Your task to perform on an android device: toggle javascript in the chrome app Image 0: 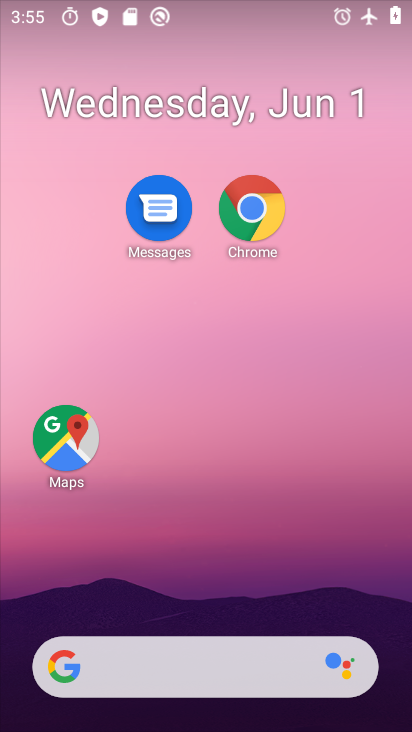
Step 0: click (268, 224)
Your task to perform on an android device: toggle javascript in the chrome app Image 1: 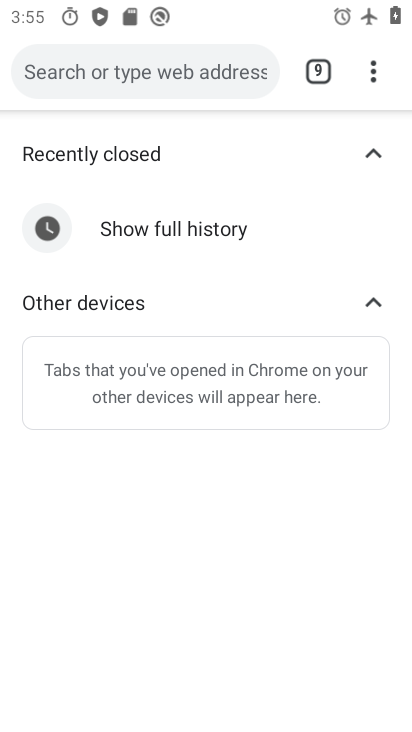
Step 1: drag from (375, 67) to (162, 608)
Your task to perform on an android device: toggle javascript in the chrome app Image 2: 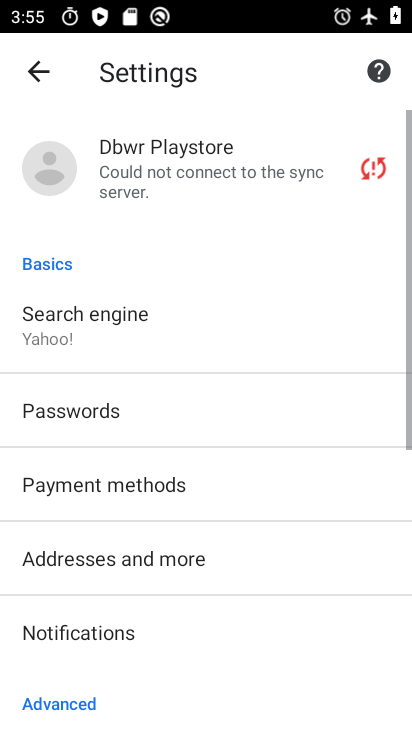
Step 2: drag from (236, 661) to (233, 315)
Your task to perform on an android device: toggle javascript in the chrome app Image 3: 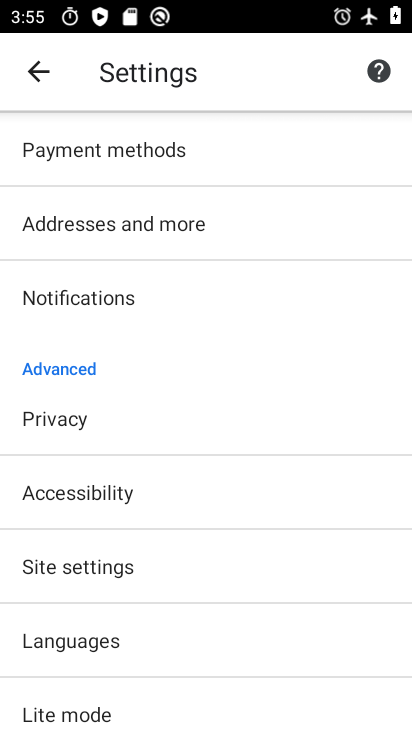
Step 3: drag from (135, 566) to (166, 358)
Your task to perform on an android device: toggle javascript in the chrome app Image 4: 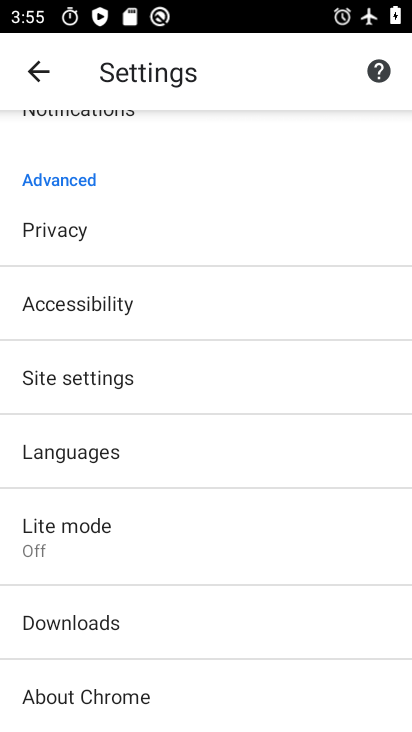
Step 4: click (133, 359)
Your task to perform on an android device: toggle javascript in the chrome app Image 5: 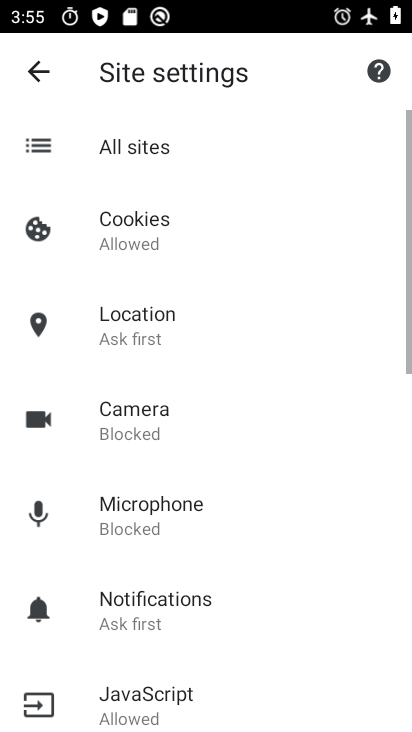
Step 5: click (200, 680)
Your task to perform on an android device: toggle javascript in the chrome app Image 6: 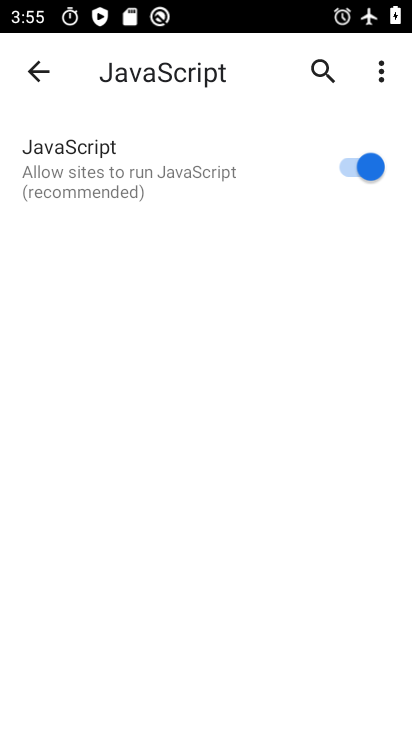
Step 6: click (357, 171)
Your task to perform on an android device: toggle javascript in the chrome app Image 7: 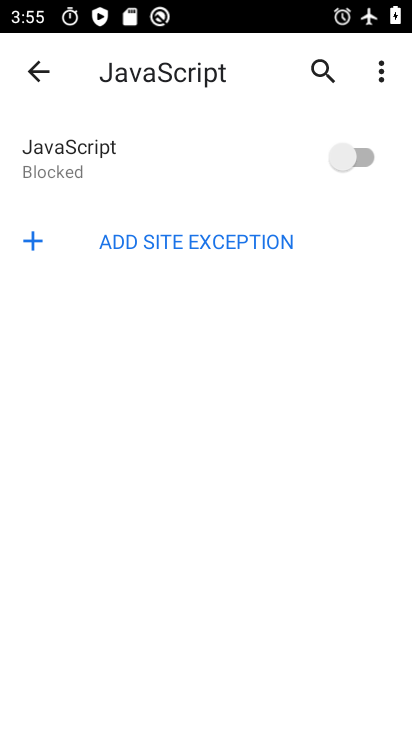
Step 7: task complete